Your task to perform on an android device: Turn on the flashlight Image 0: 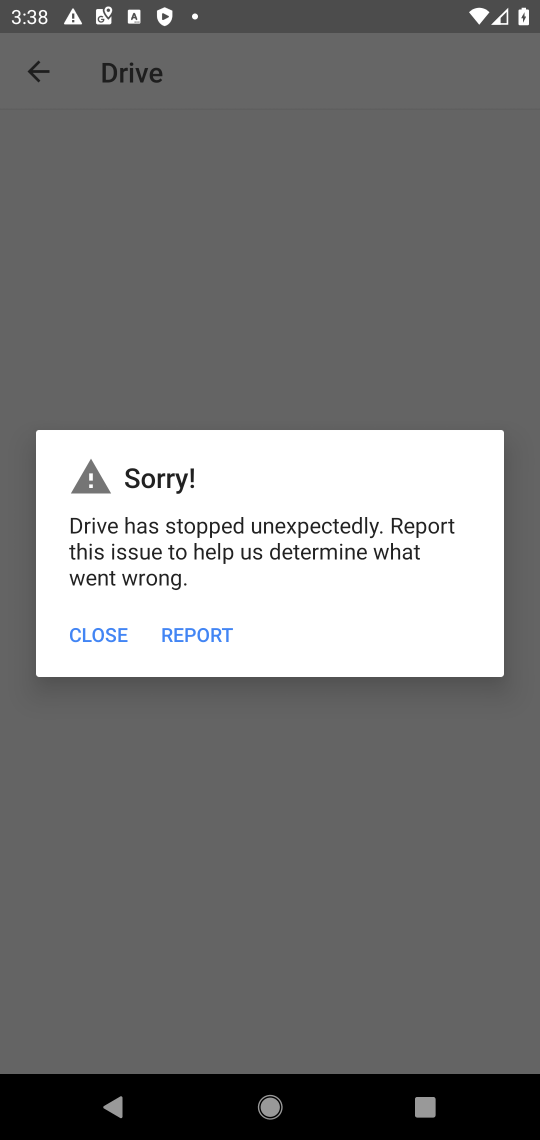
Step 0: press home button
Your task to perform on an android device: Turn on the flashlight Image 1: 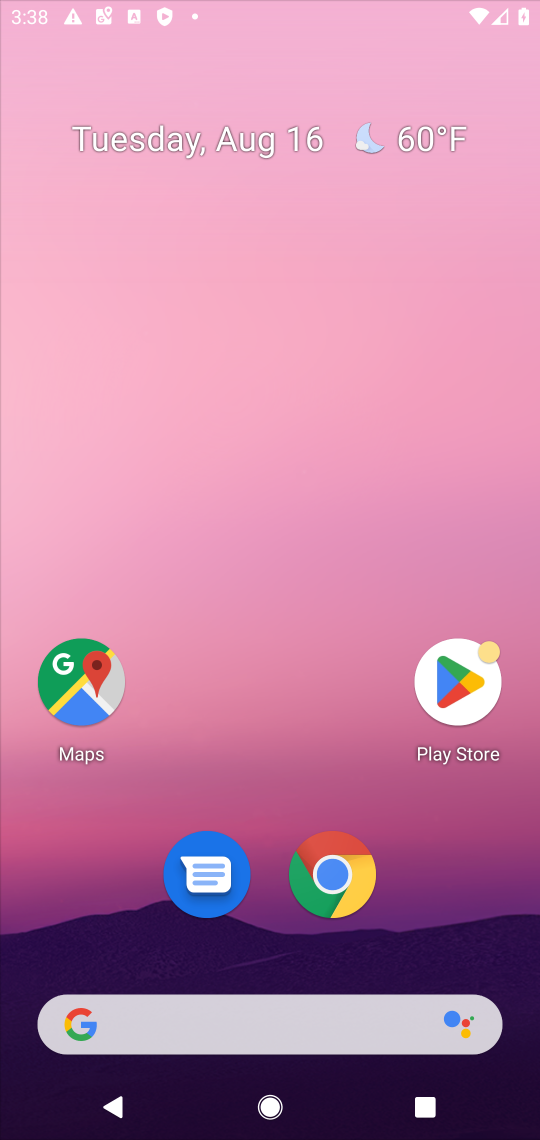
Step 1: press home button
Your task to perform on an android device: Turn on the flashlight Image 2: 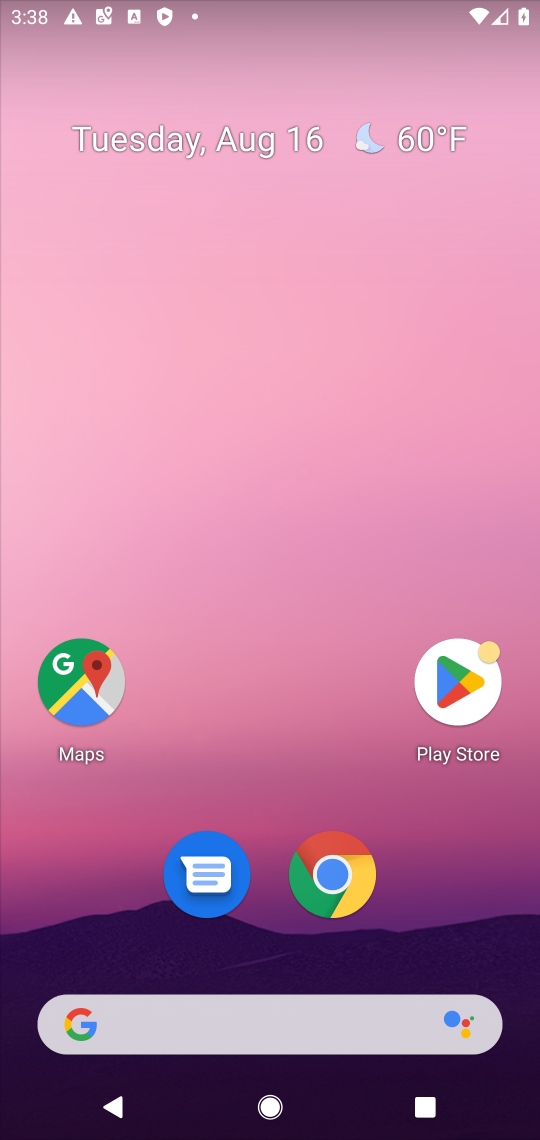
Step 2: drag from (228, 941) to (82, 180)
Your task to perform on an android device: Turn on the flashlight Image 3: 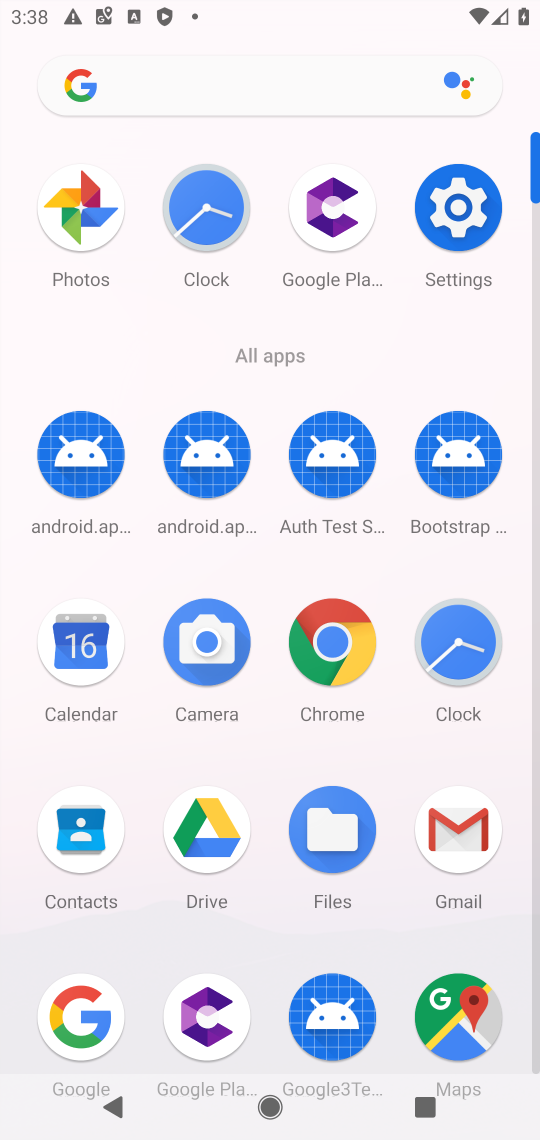
Step 3: click (471, 216)
Your task to perform on an android device: Turn on the flashlight Image 4: 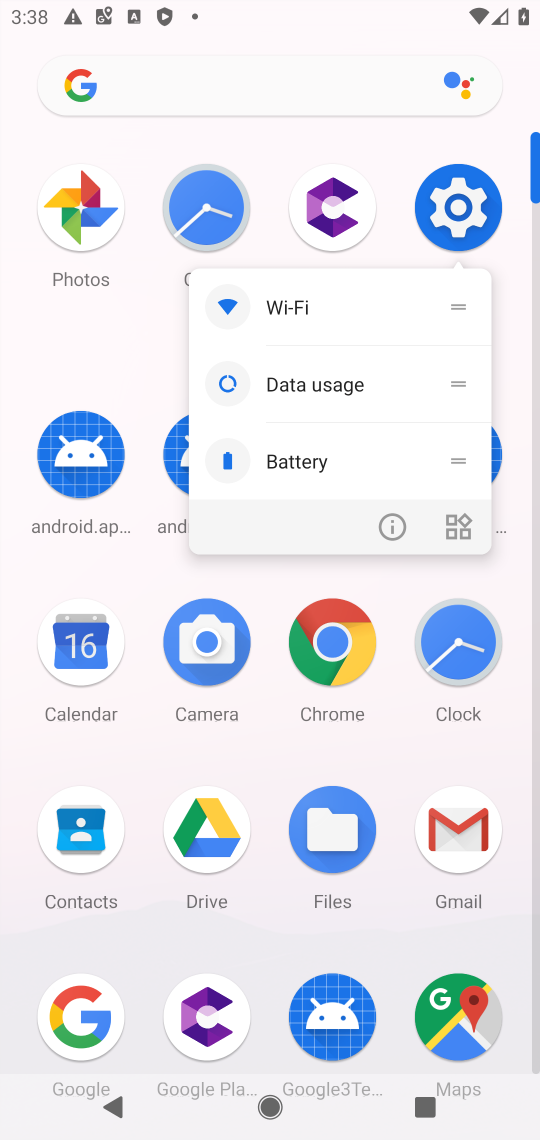
Step 4: click (438, 207)
Your task to perform on an android device: Turn on the flashlight Image 5: 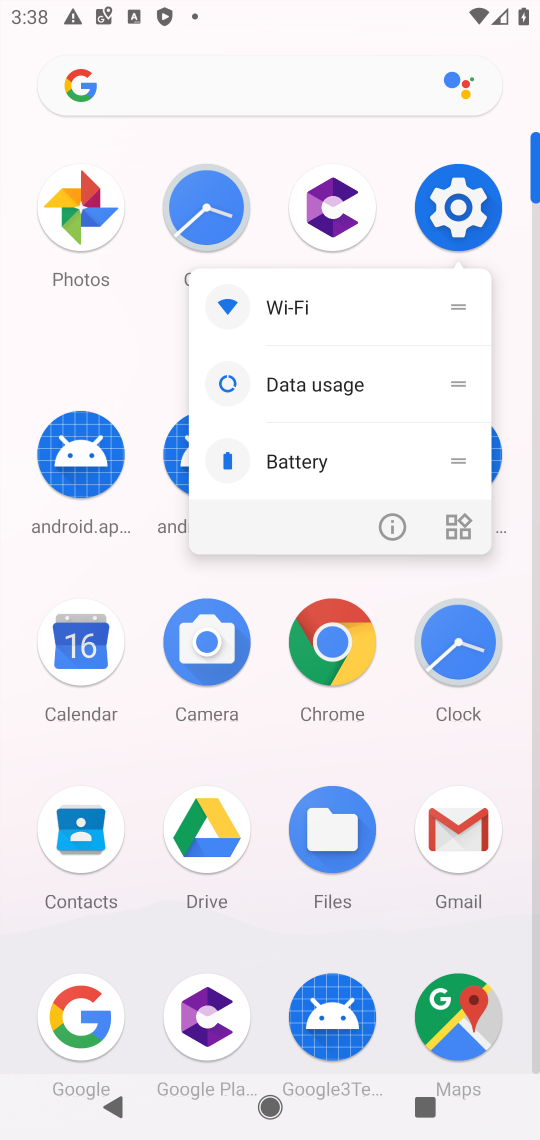
Step 5: click (442, 209)
Your task to perform on an android device: Turn on the flashlight Image 6: 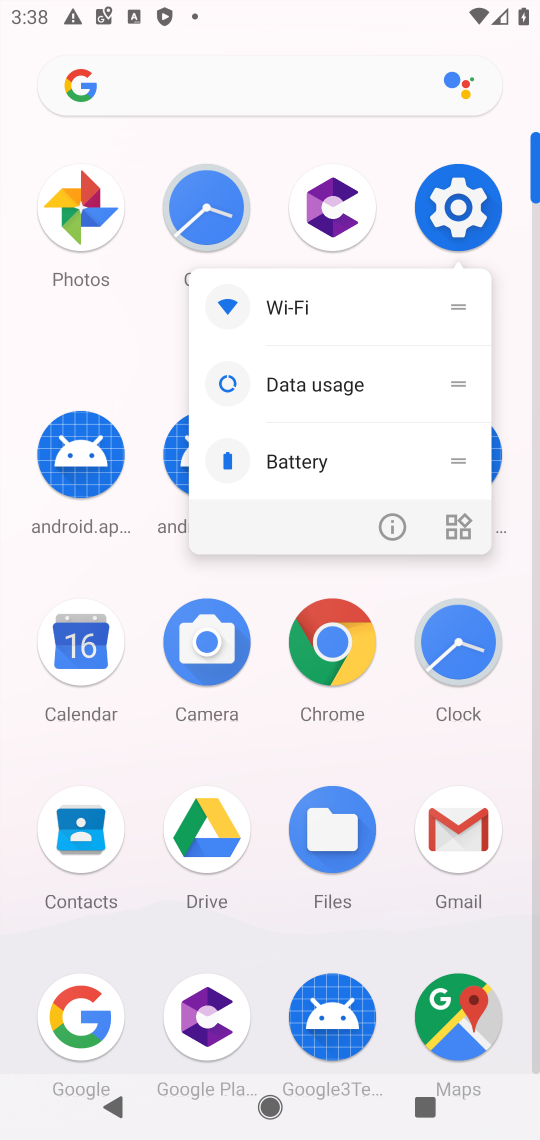
Step 6: click (447, 207)
Your task to perform on an android device: Turn on the flashlight Image 7: 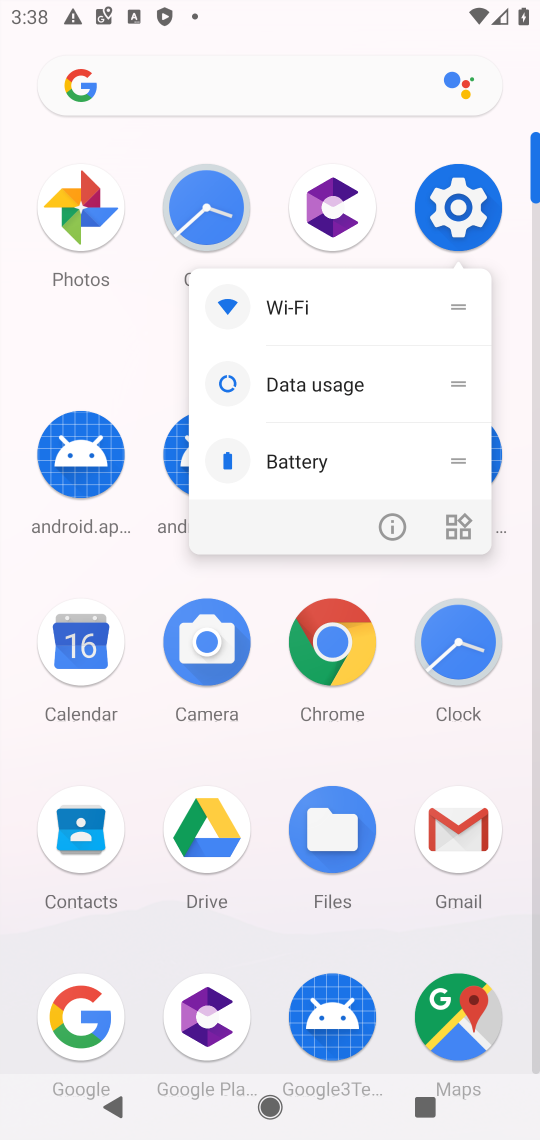
Step 7: click (445, 206)
Your task to perform on an android device: Turn on the flashlight Image 8: 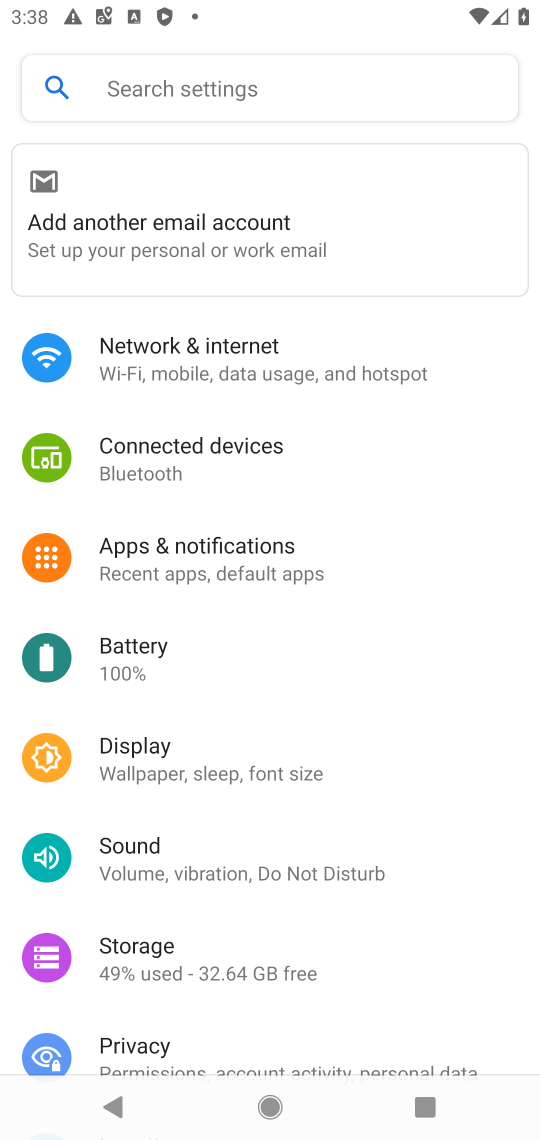
Step 8: task complete